Your task to perform on an android device: Go to Yahoo.com Image 0: 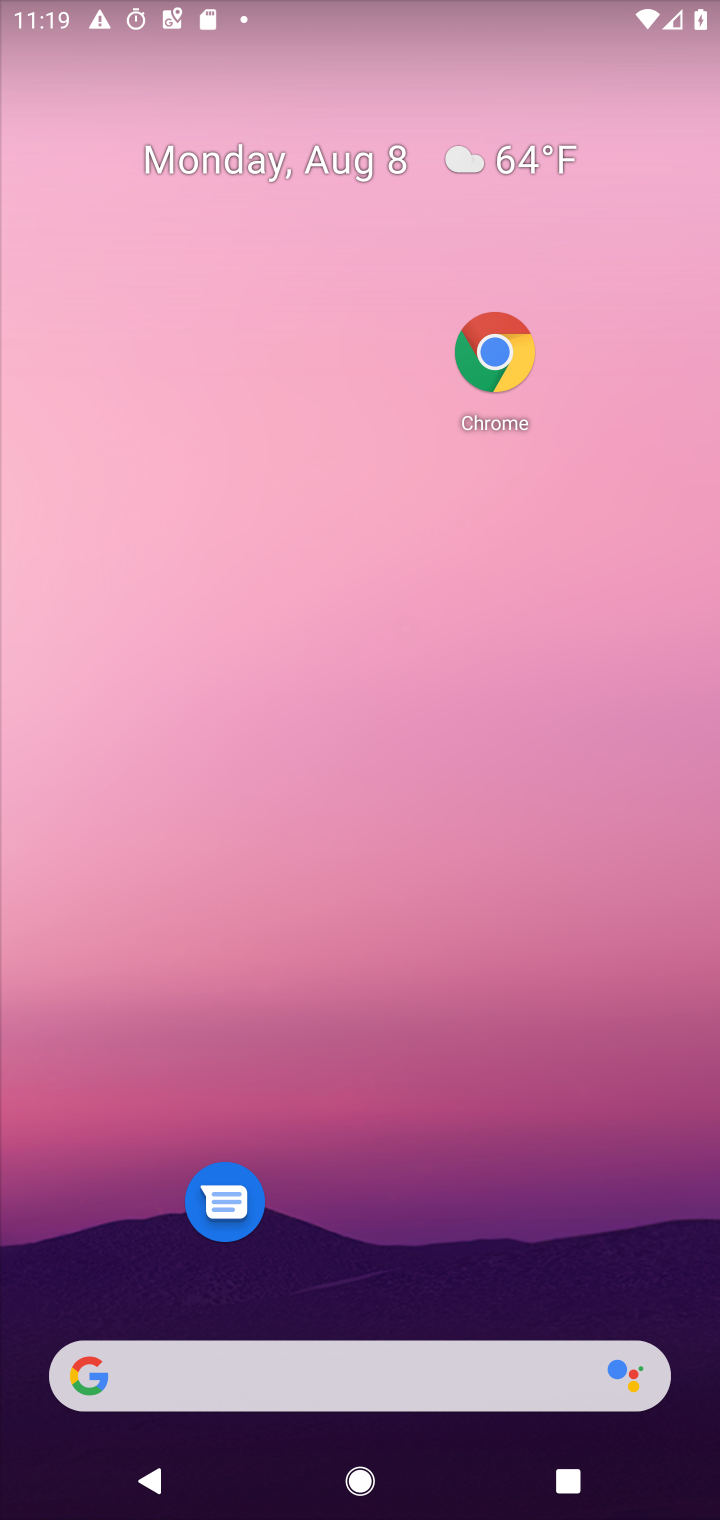
Step 0: drag from (470, 1243) to (327, 138)
Your task to perform on an android device: Go to Yahoo.com Image 1: 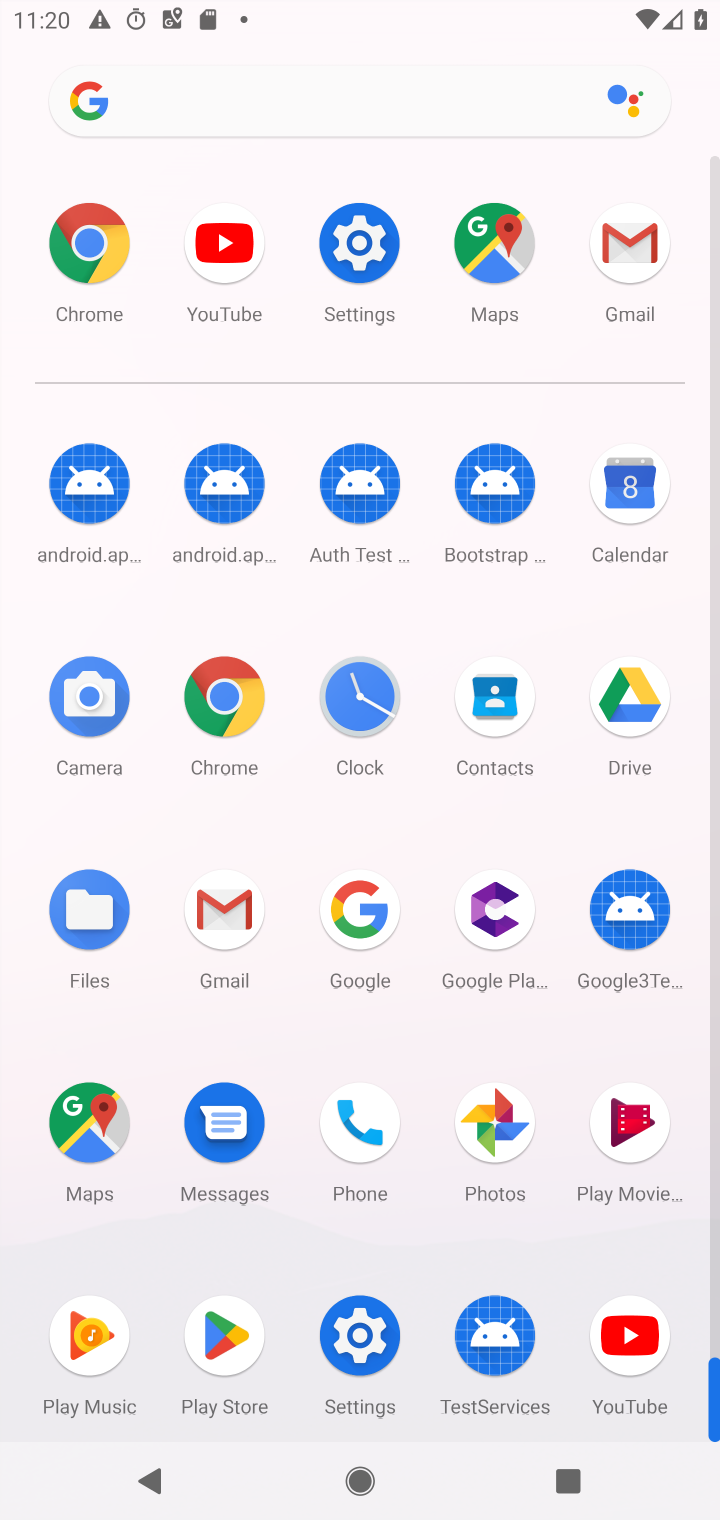
Step 1: click (130, 295)
Your task to perform on an android device: Go to Yahoo.com Image 2: 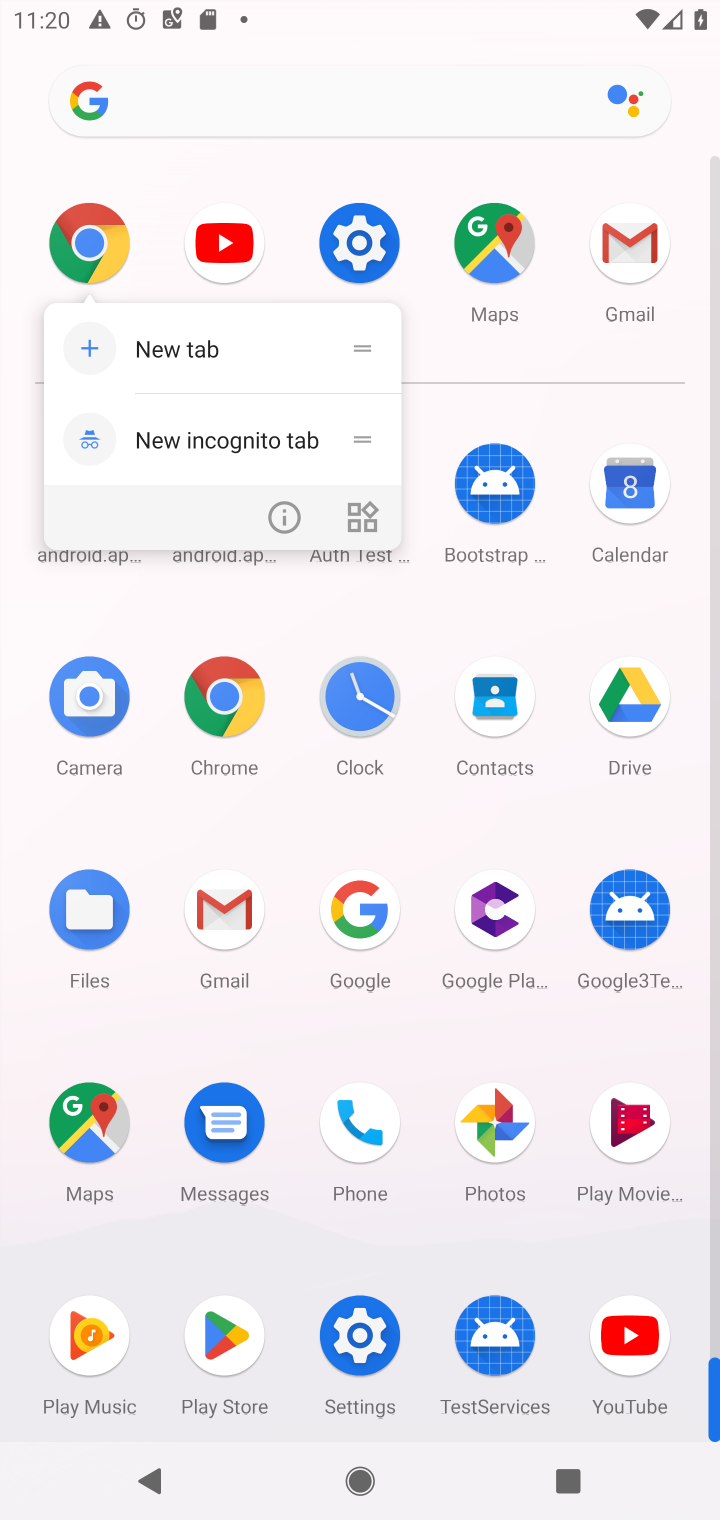
Step 2: click (65, 237)
Your task to perform on an android device: Go to Yahoo.com Image 3: 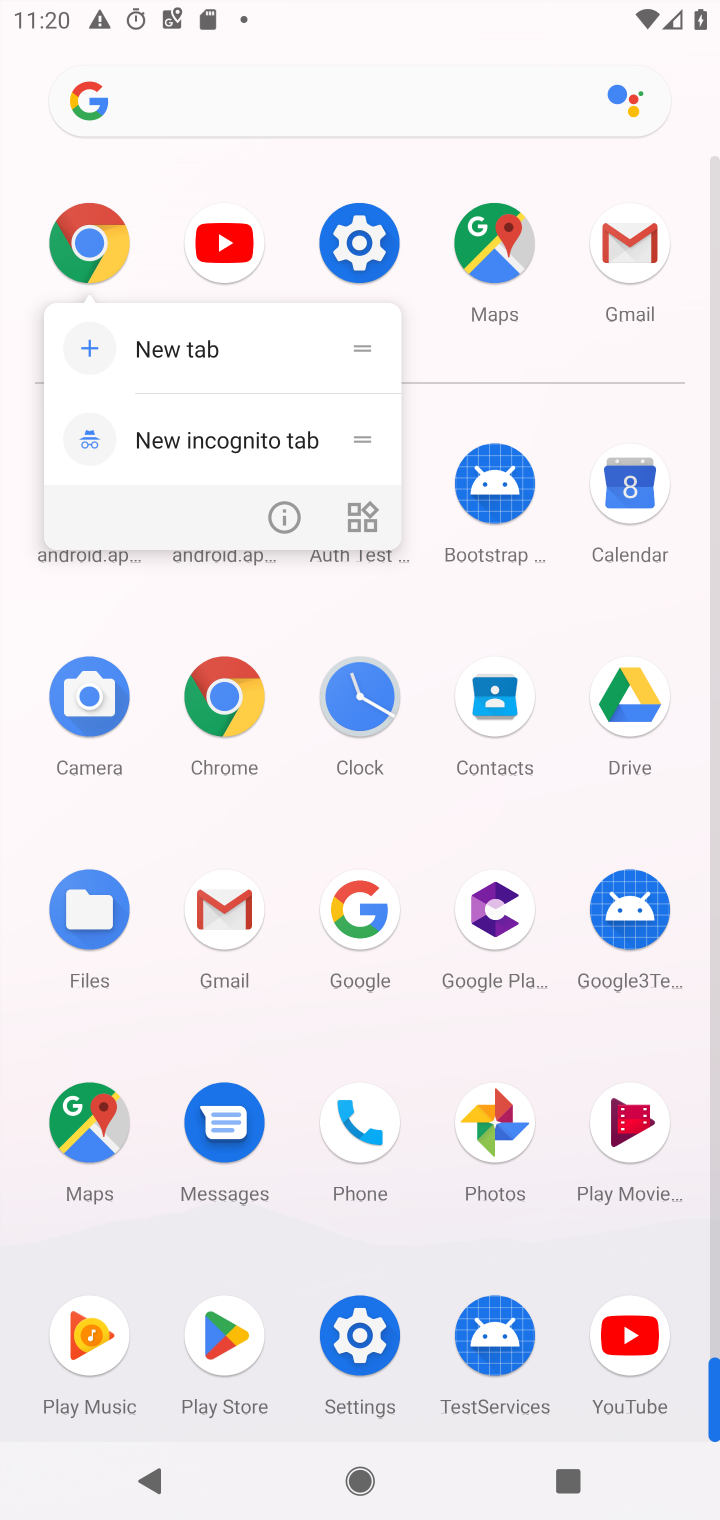
Step 3: click (85, 248)
Your task to perform on an android device: Go to Yahoo.com Image 4: 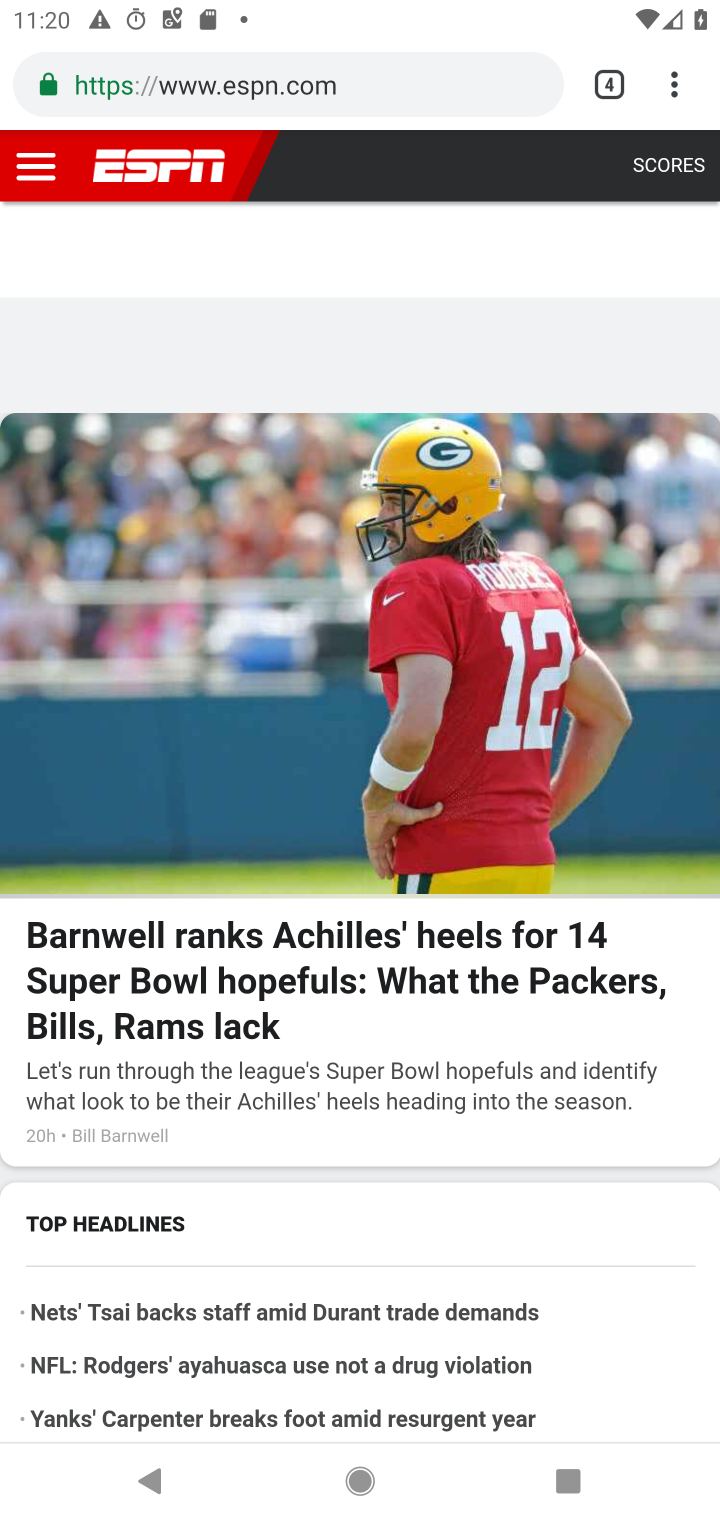
Step 4: click (366, 82)
Your task to perform on an android device: Go to Yahoo.com Image 5: 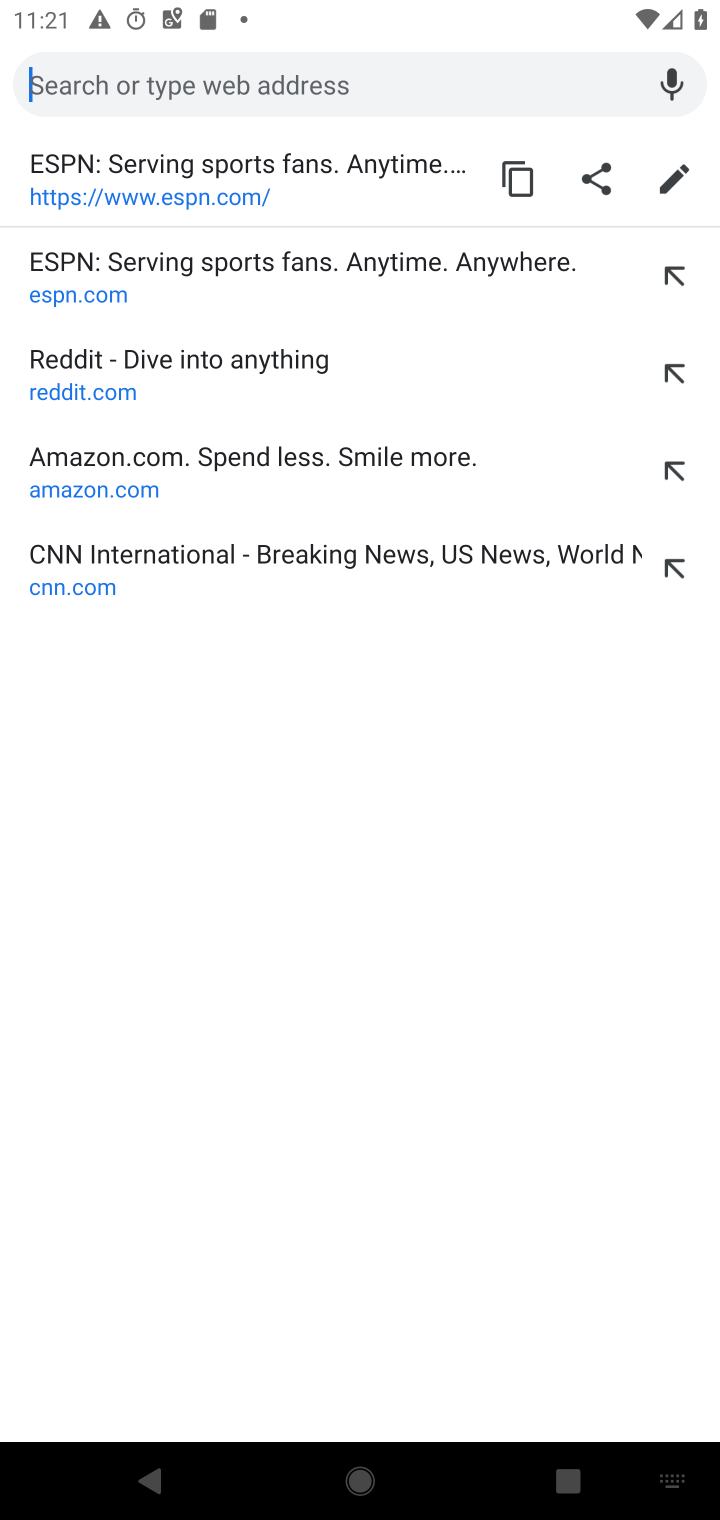
Step 5: type "yahoo"
Your task to perform on an android device: Go to Yahoo.com Image 6: 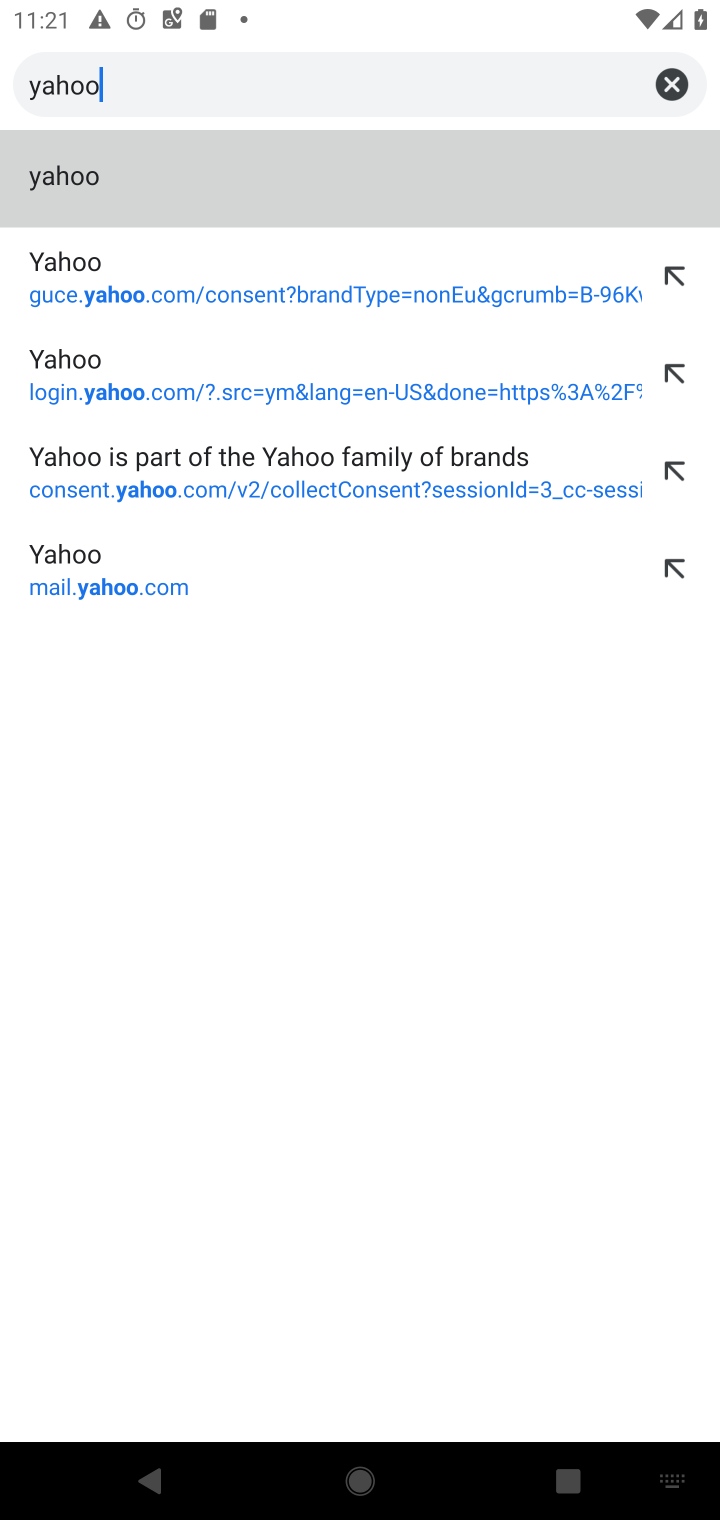
Step 6: click (242, 573)
Your task to perform on an android device: Go to Yahoo.com Image 7: 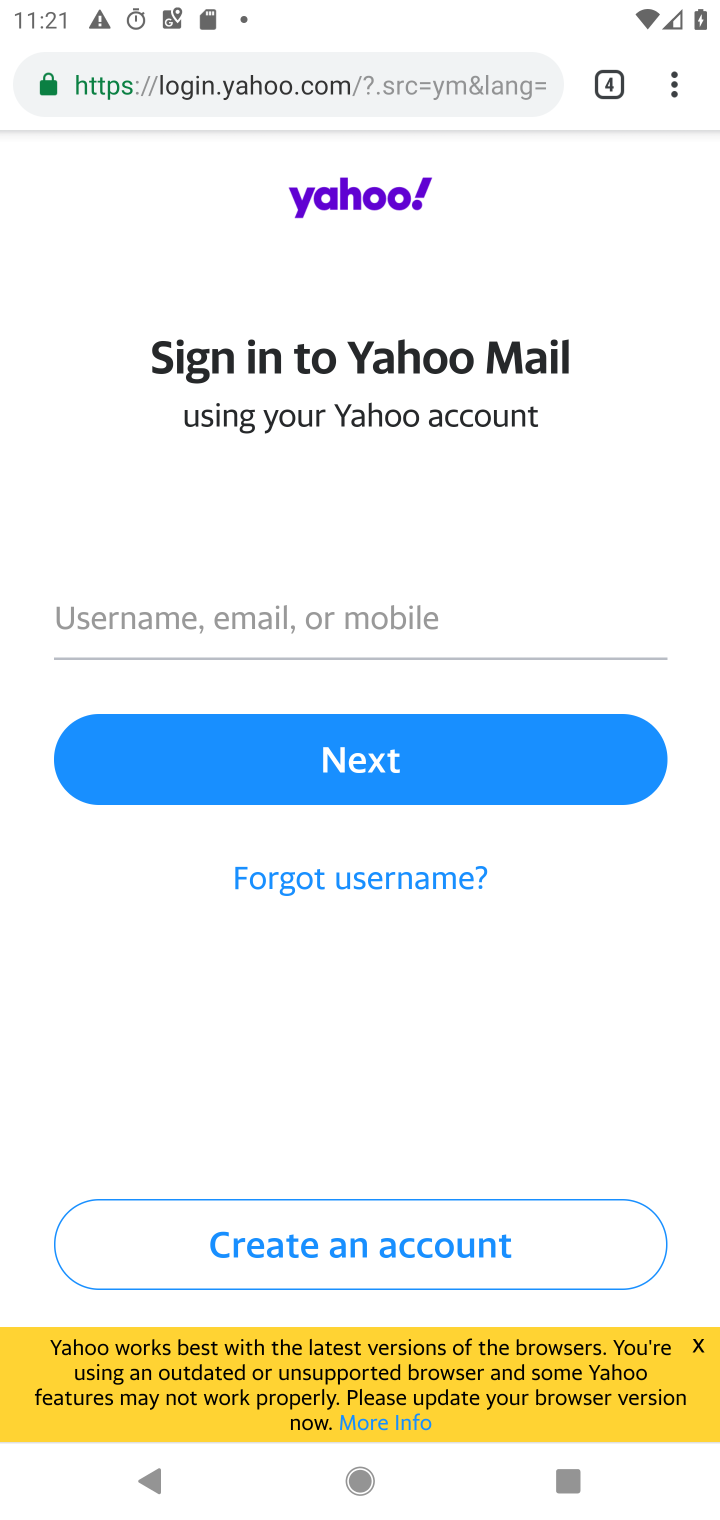
Step 7: task complete